Your task to perform on an android device: install app "Reddit" Image 0: 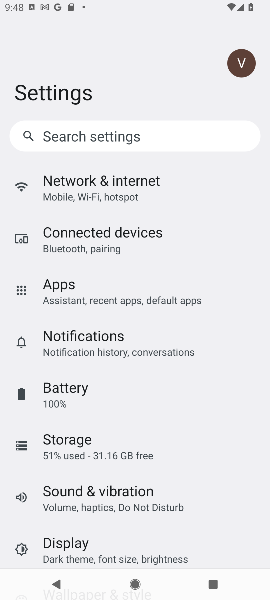
Step 0: press home button
Your task to perform on an android device: install app "Reddit" Image 1: 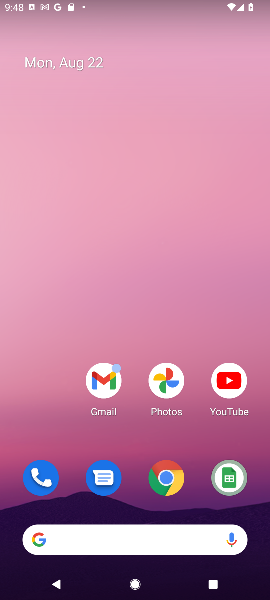
Step 1: drag from (128, 515) to (140, 27)
Your task to perform on an android device: install app "Reddit" Image 2: 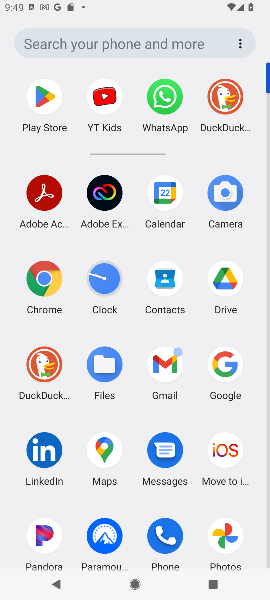
Step 2: click (94, 555)
Your task to perform on an android device: install app "Reddit" Image 3: 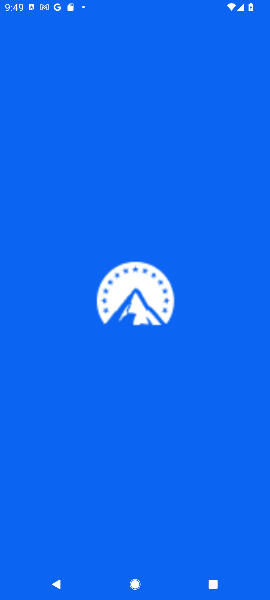
Step 3: task complete